Your task to perform on an android device: set an alarm Image 0: 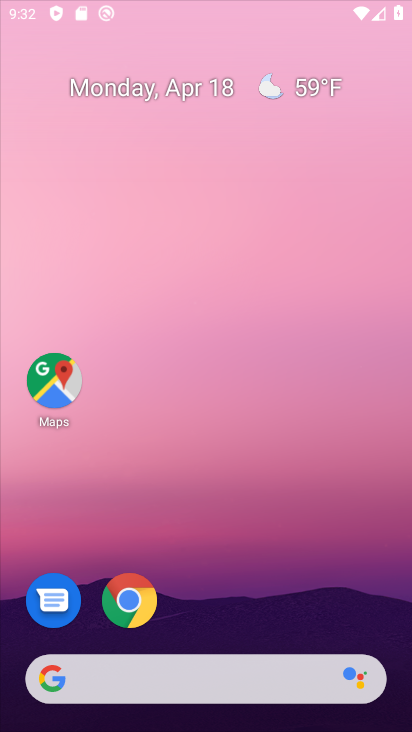
Step 0: drag from (223, 575) to (194, 18)
Your task to perform on an android device: set an alarm Image 1: 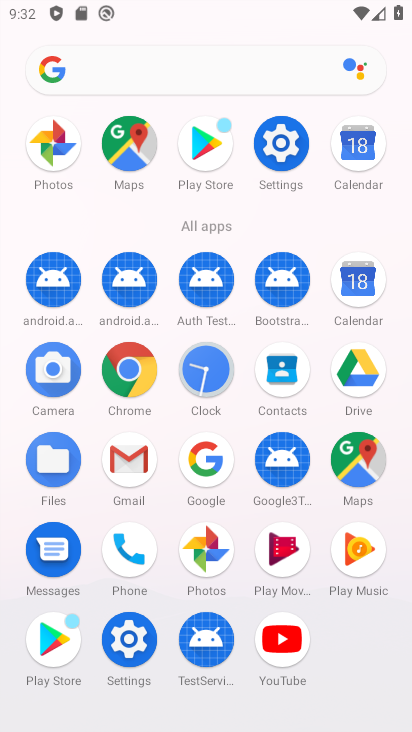
Step 1: click (206, 360)
Your task to perform on an android device: set an alarm Image 2: 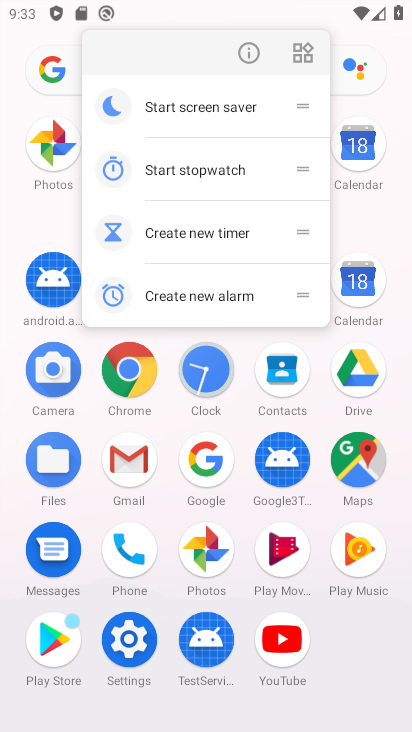
Step 2: click (218, 372)
Your task to perform on an android device: set an alarm Image 3: 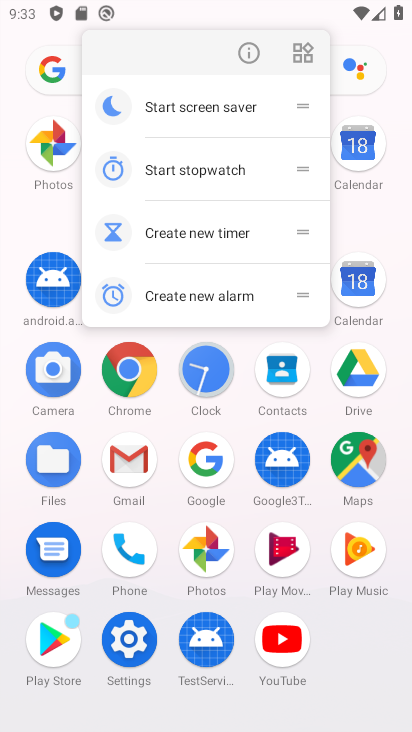
Step 3: click (205, 370)
Your task to perform on an android device: set an alarm Image 4: 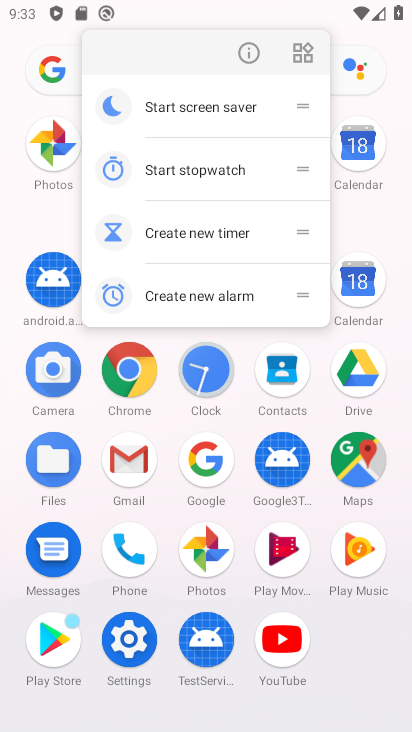
Step 4: click (205, 370)
Your task to perform on an android device: set an alarm Image 5: 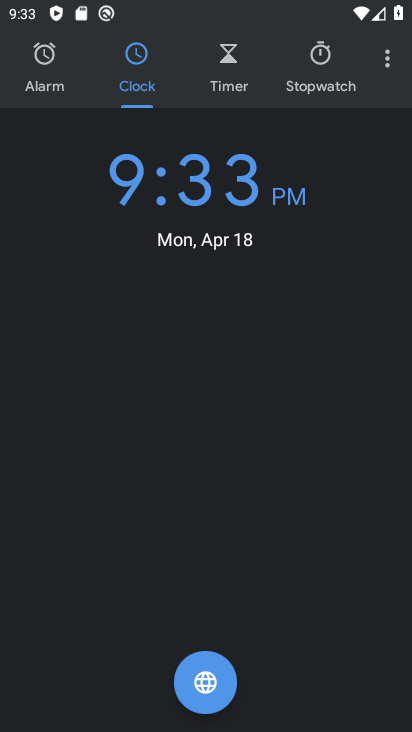
Step 5: click (37, 60)
Your task to perform on an android device: set an alarm Image 6: 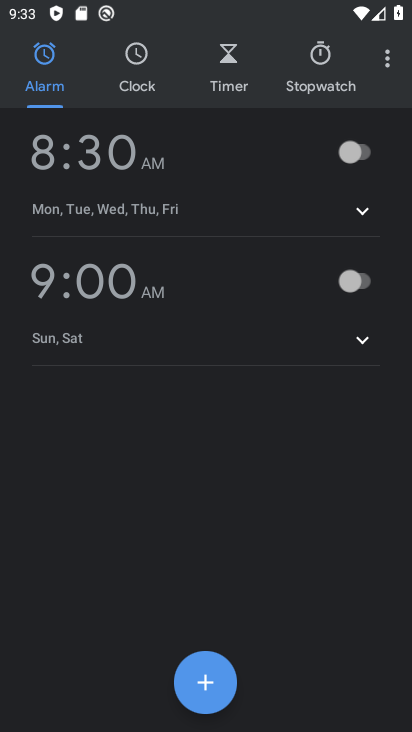
Step 6: click (206, 677)
Your task to perform on an android device: set an alarm Image 7: 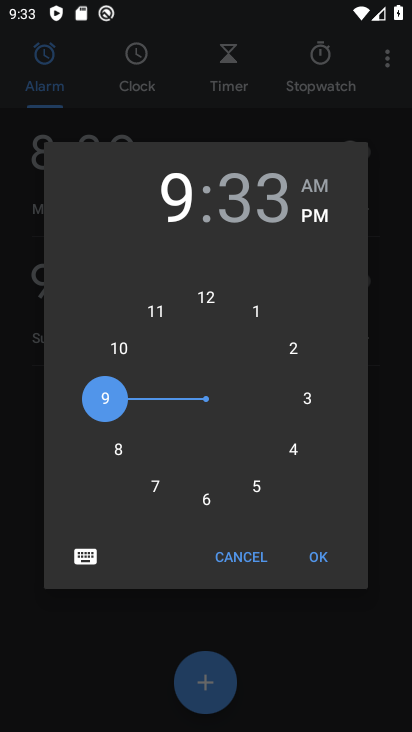
Step 7: click (316, 554)
Your task to perform on an android device: set an alarm Image 8: 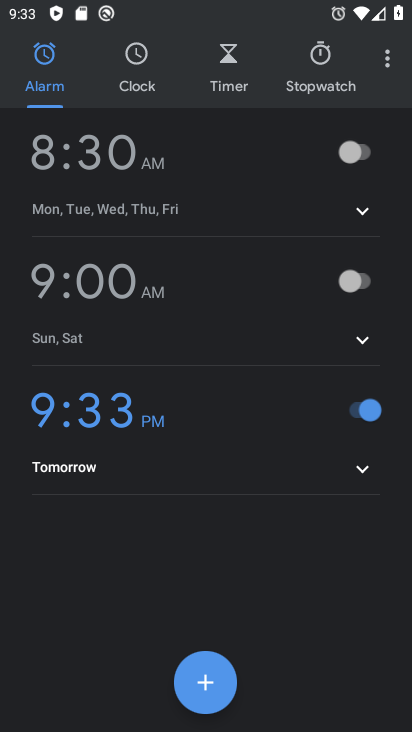
Step 8: task complete